Your task to perform on an android device: install app "Flipkart Online Shopping App" Image 0: 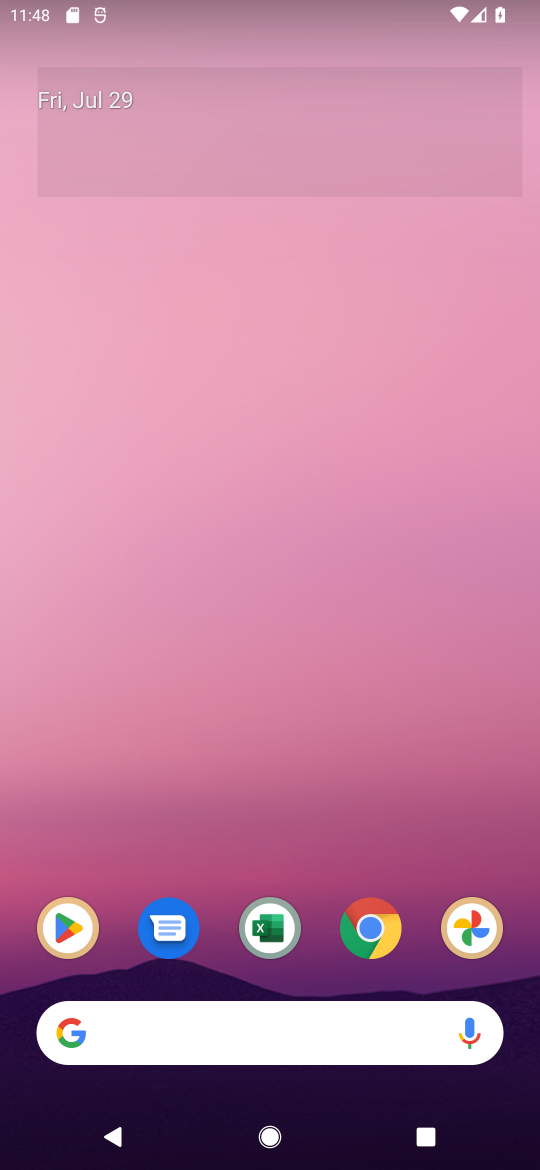
Step 0: drag from (379, 819) to (412, 207)
Your task to perform on an android device: install app "Flipkart Online Shopping App" Image 1: 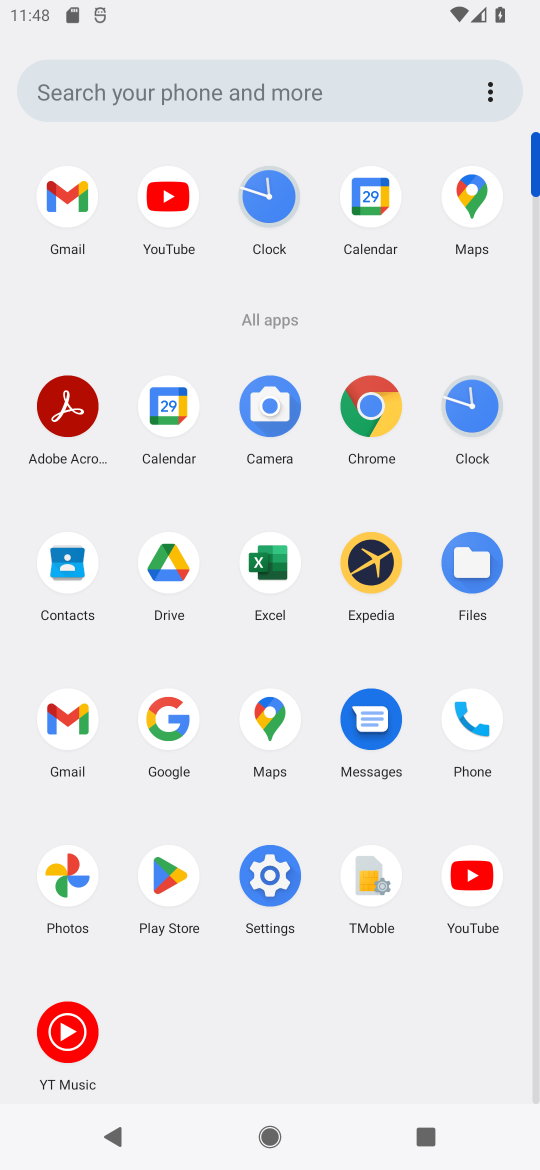
Step 1: click (179, 863)
Your task to perform on an android device: install app "Flipkart Online Shopping App" Image 2: 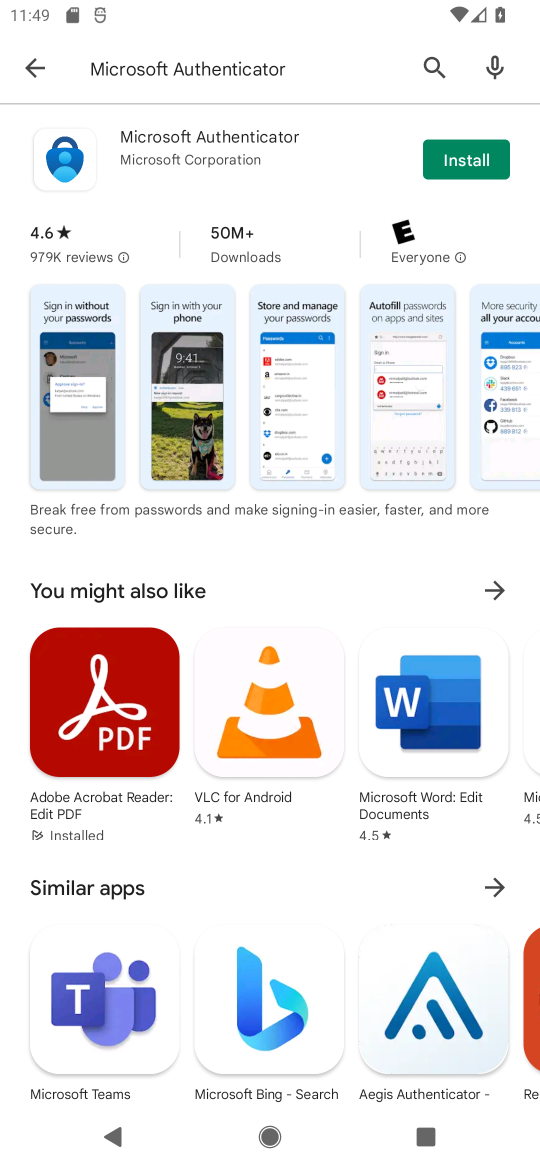
Step 2: click (259, 69)
Your task to perform on an android device: install app "Flipkart Online Shopping App" Image 3: 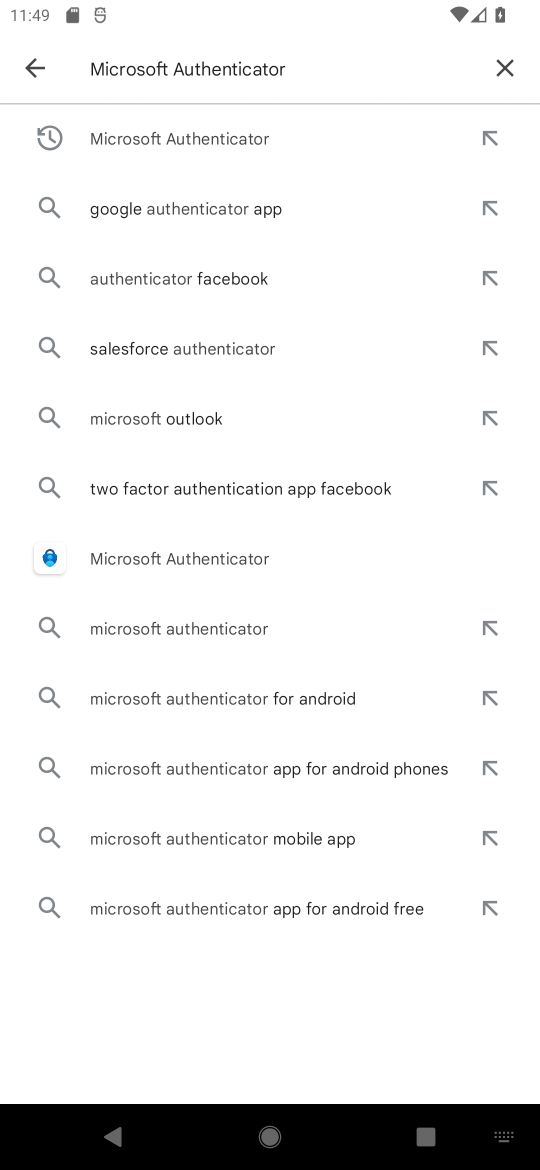
Step 3: click (496, 60)
Your task to perform on an android device: install app "Flipkart Online Shopping App" Image 4: 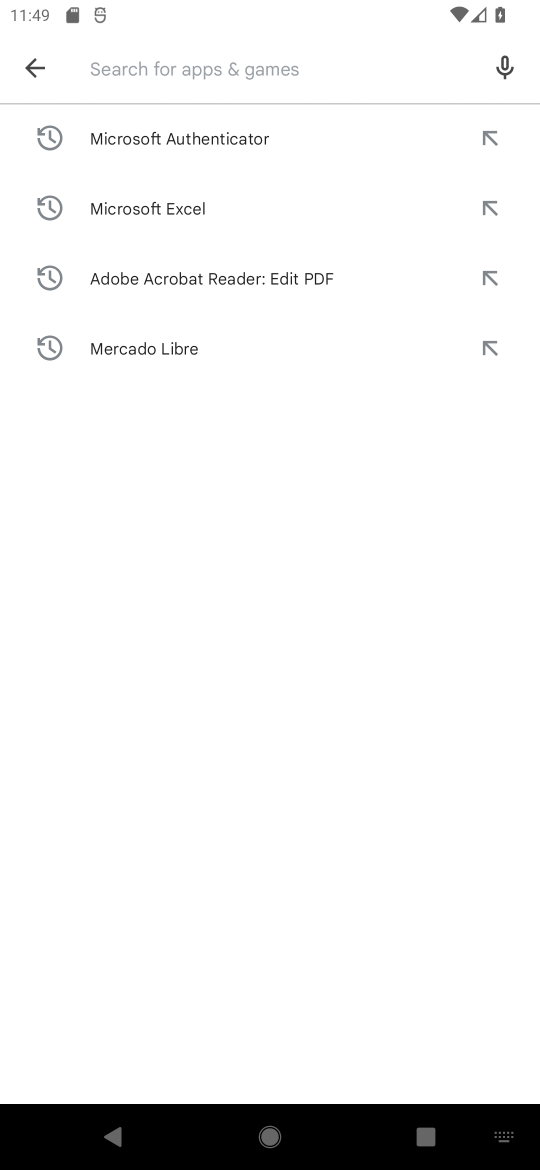
Step 4: type "Flipkart Online Shopping App"
Your task to perform on an android device: install app "Flipkart Online Shopping App" Image 5: 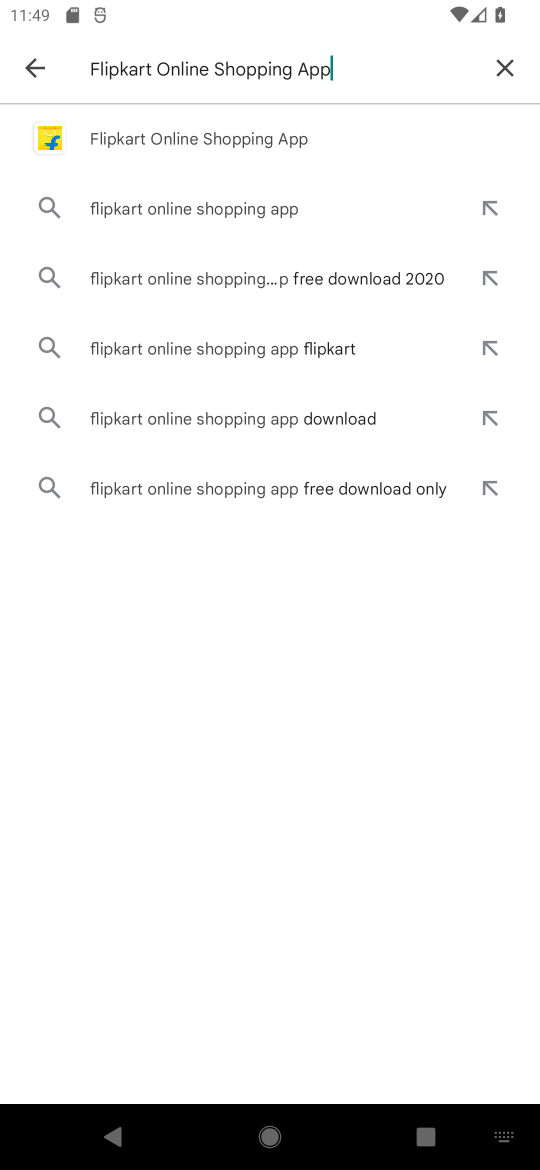
Step 5: press enter
Your task to perform on an android device: install app "Flipkart Online Shopping App" Image 6: 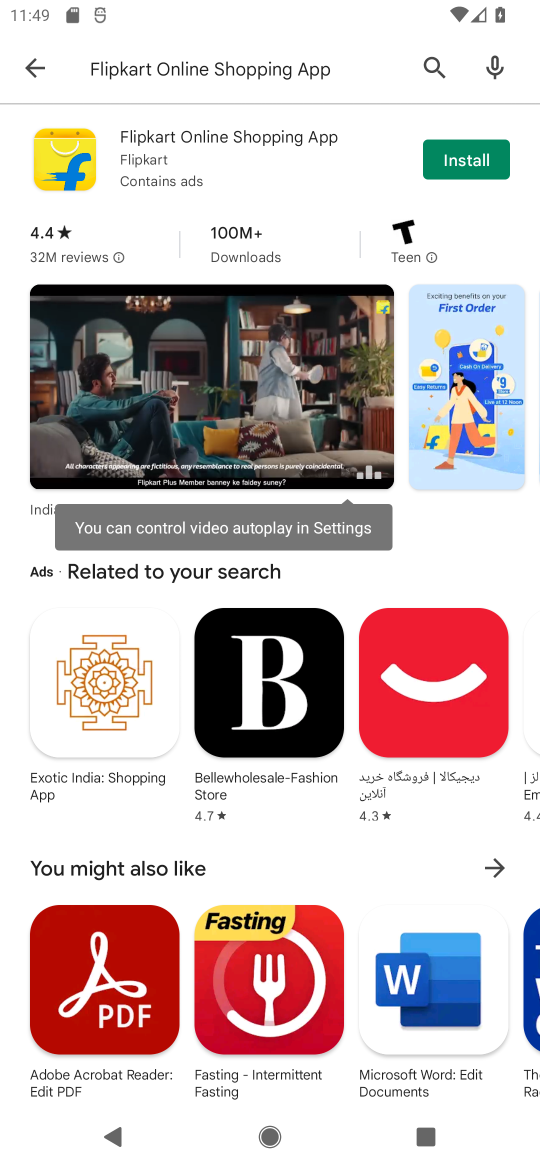
Step 6: click (485, 160)
Your task to perform on an android device: install app "Flipkart Online Shopping App" Image 7: 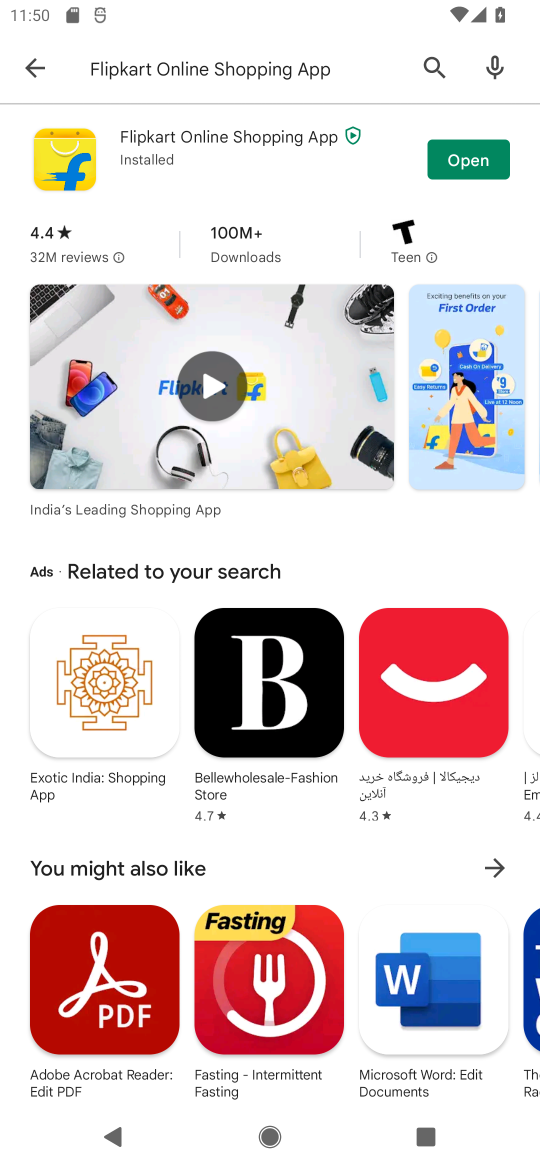
Step 7: task complete